Your task to perform on an android device: move an email to a new category in the gmail app Image 0: 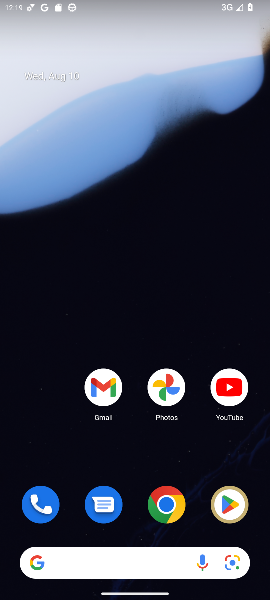
Step 0: press home button
Your task to perform on an android device: move an email to a new category in the gmail app Image 1: 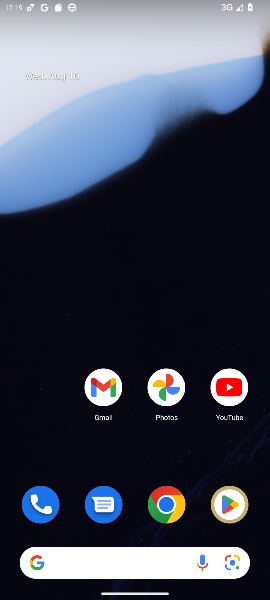
Step 1: click (119, 381)
Your task to perform on an android device: move an email to a new category in the gmail app Image 2: 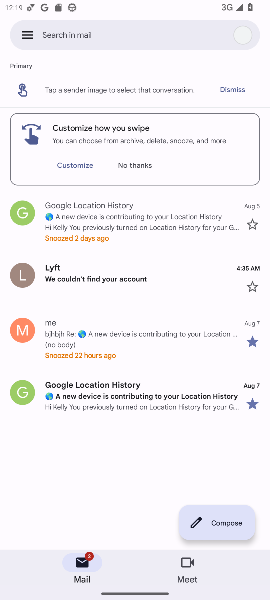
Step 2: click (105, 226)
Your task to perform on an android device: move an email to a new category in the gmail app Image 3: 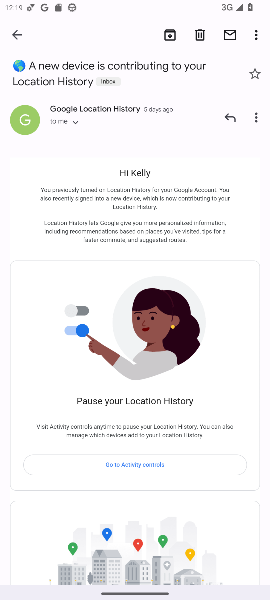
Step 3: click (261, 31)
Your task to perform on an android device: move an email to a new category in the gmail app Image 4: 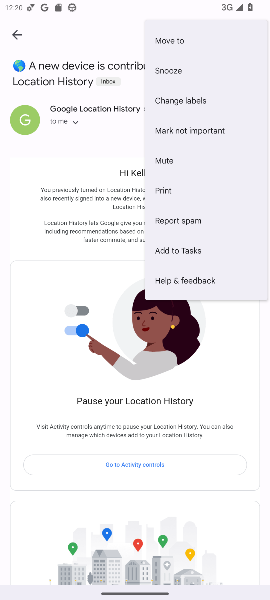
Step 4: click (169, 46)
Your task to perform on an android device: move an email to a new category in the gmail app Image 5: 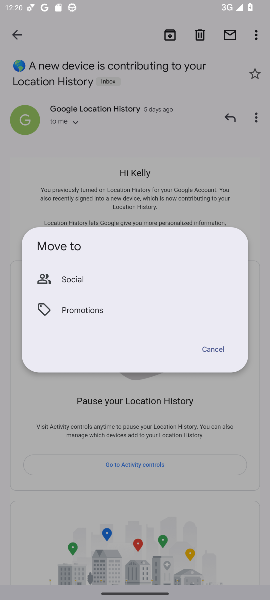
Step 5: click (72, 305)
Your task to perform on an android device: move an email to a new category in the gmail app Image 6: 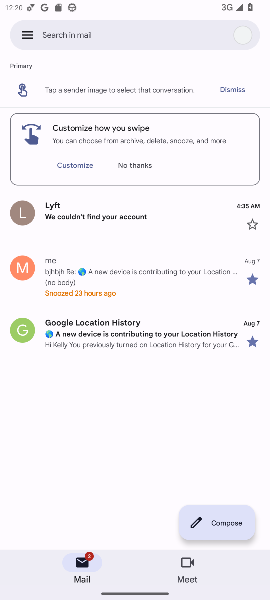
Step 6: task complete